Your task to perform on an android device: toggle data saver in the chrome app Image 0: 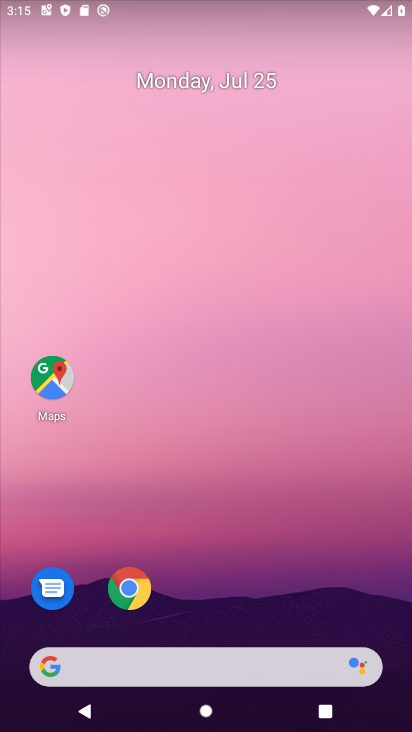
Step 0: drag from (328, 584) to (358, 49)
Your task to perform on an android device: toggle data saver in the chrome app Image 1: 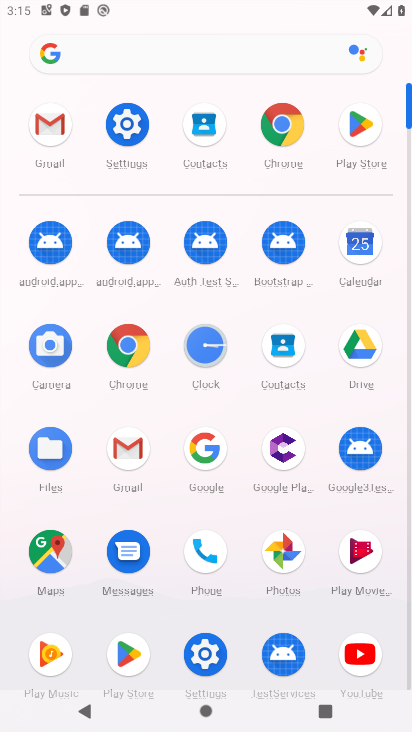
Step 1: click (122, 348)
Your task to perform on an android device: toggle data saver in the chrome app Image 2: 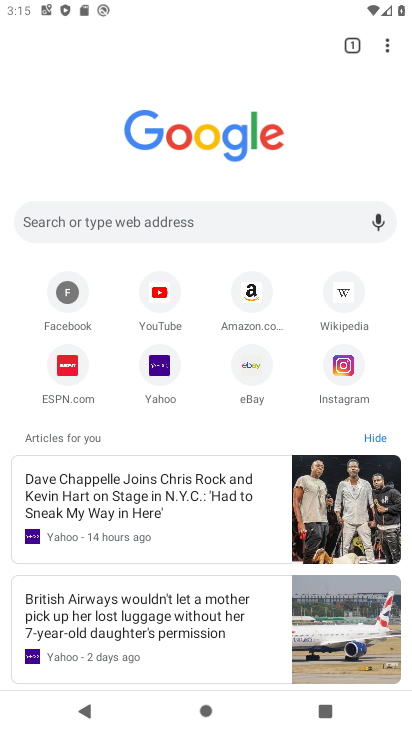
Step 2: drag from (384, 49) to (212, 382)
Your task to perform on an android device: toggle data saver in the chrome app Image 3: 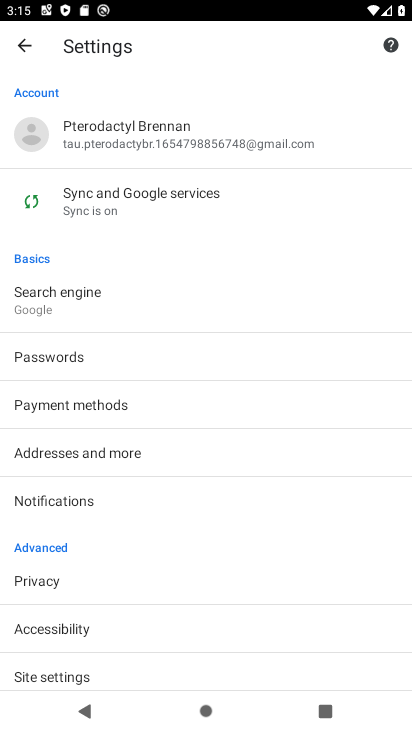
Step 3: drag from (198, 643) to (224, 197)
Your task to perform on an android device: toggle data saver in the chrome app Image 4: 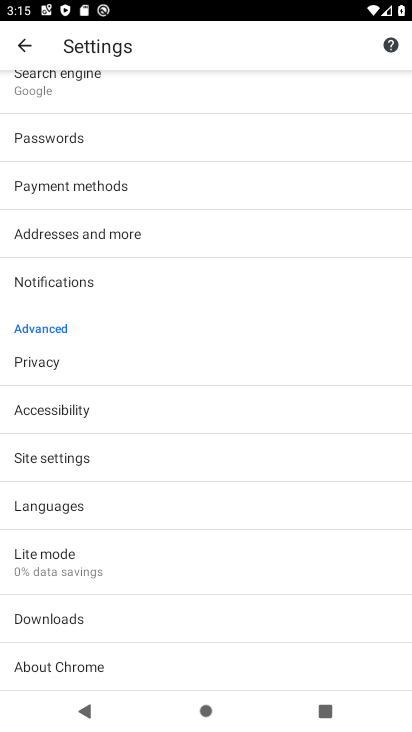
Step 4: click (51, 558)
Your task to perform on an android device: toggle data saver in the chrome app Image 5: 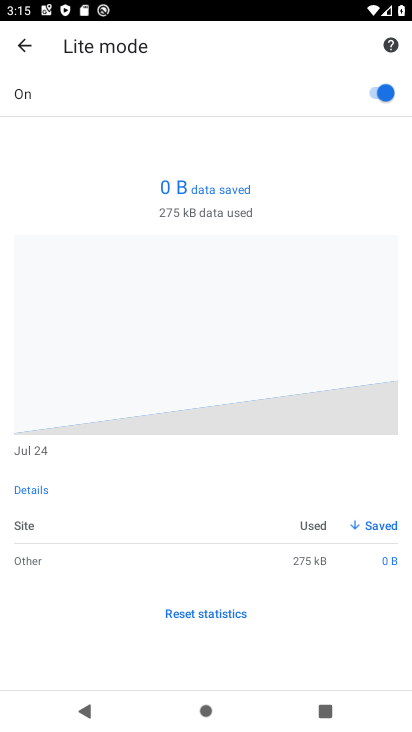
Step 5: click (368, 100)
Your task to perform on an android device: toggle data saver in the chrome app Image 6: 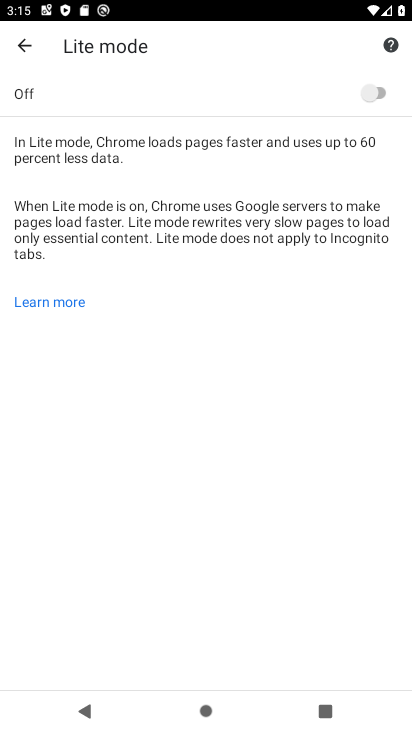
Step 6: task complete